Your task to perform on an android device: star an email in the gmail app Image 0: 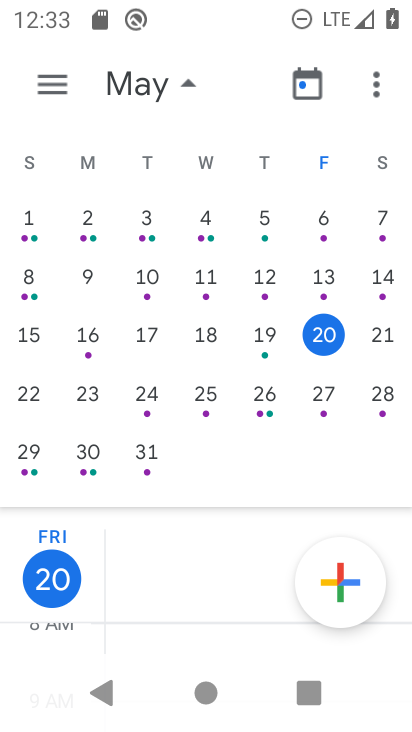
Step 0: press home button
Your task to perform on an android device: star an email in the gmail app Image 1: 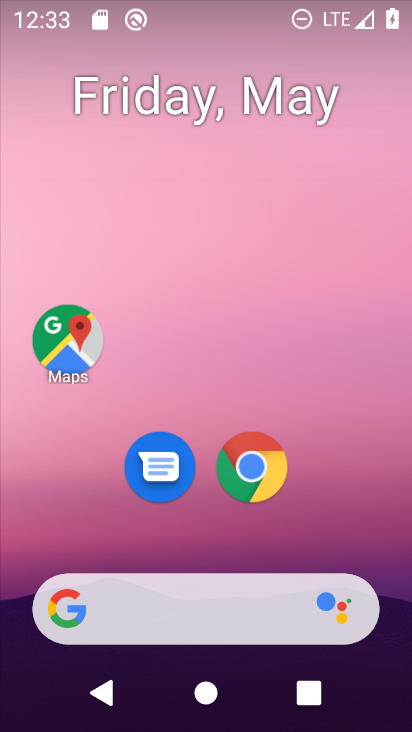
Step 1: drag from (305, 638) to (263, 64)
Your task to perform on an android device: star an email in the gmail app Image 2: 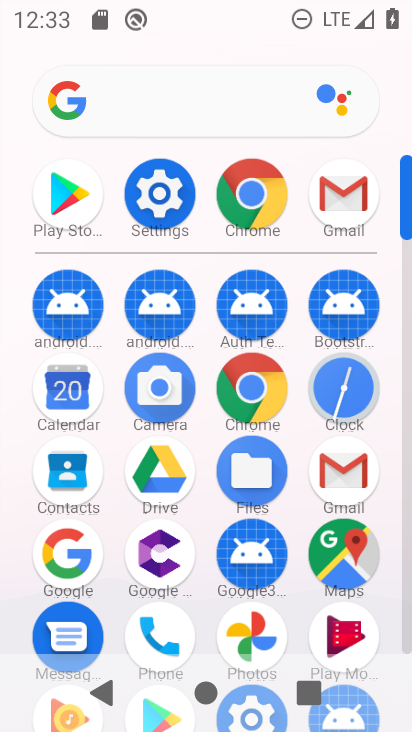
Step 2: click (356, 472)
Your task to perform on an android device: star an email in the gmail app Image 3: 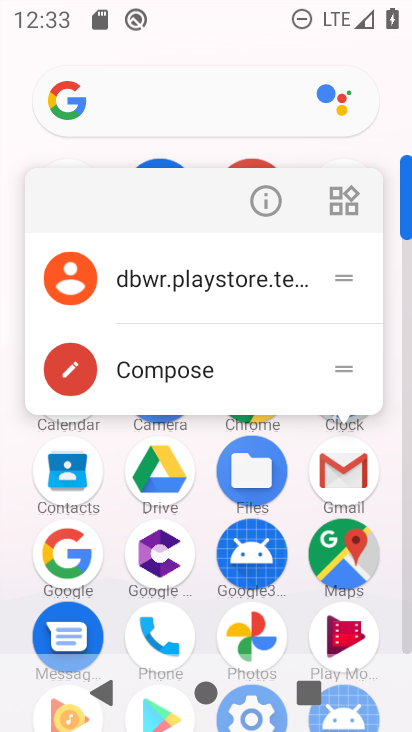
Step 3: click (325, 485)
Your task to perform on an android device: star an email in the gmail app Image 4: 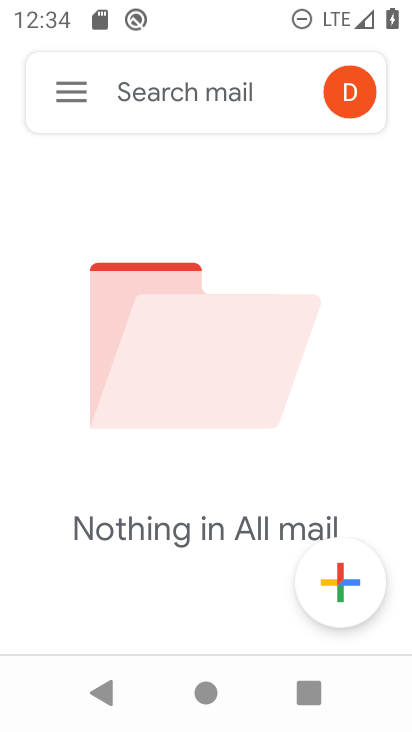
Step 4: click (65, 87)
Your task to perform on an android device: star an email in the gmail app Image 5: 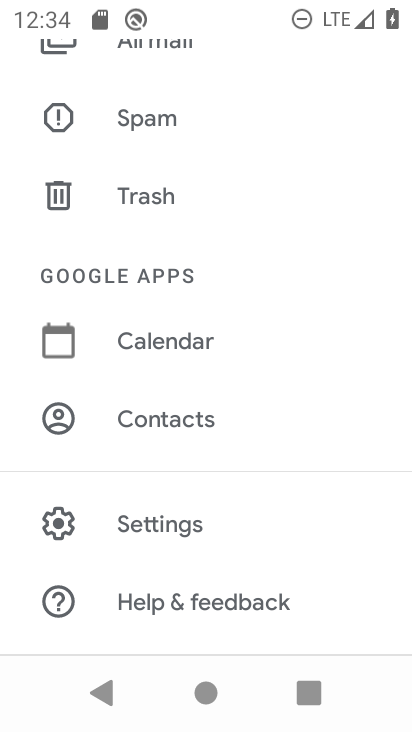
Step 5: drag from (218, 154) to (246, 679)
Your task to perform on an android device: star an email in the gmail app Image 6: 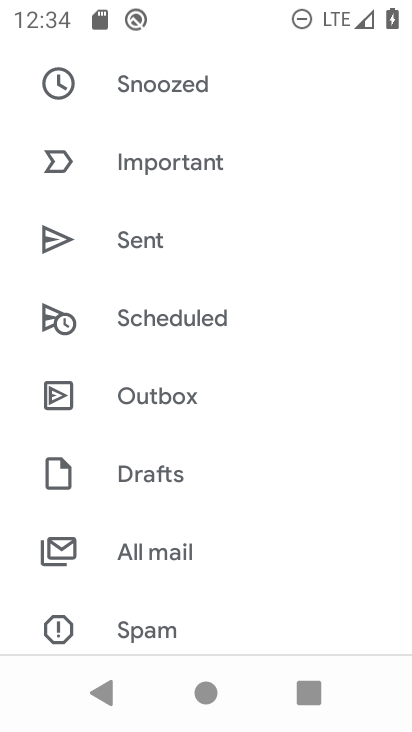
Step 6: drag from (184, 149) to (188, 534)
Your task to perform on an android device: star an email in the gmail app Image 7: 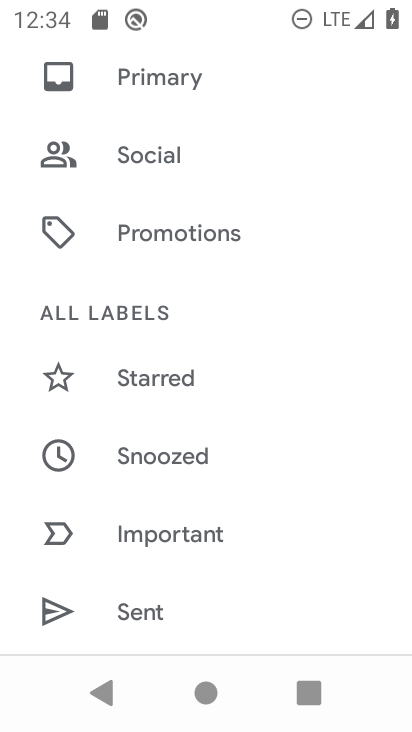
Step 7: click (186, 383)
Your task to perform on an android device: star an email in the gmail app Image 8: 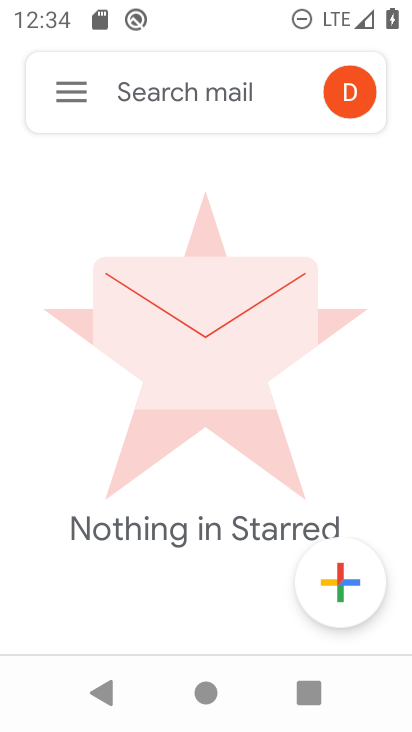
Step 8: task complete